Your task to perform on an android device: Play the last video I watched on Youtube Image 0: 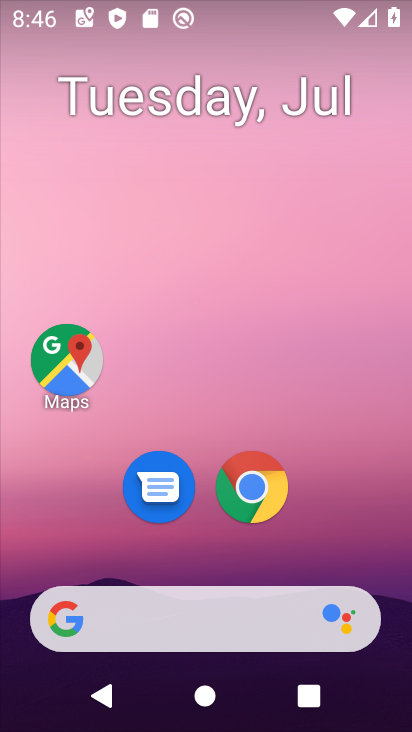
Step 0: drag from (163, 508) to (270, 0)
Your task to perform on an android device: Play the last video I watched on Youtube Image 1: 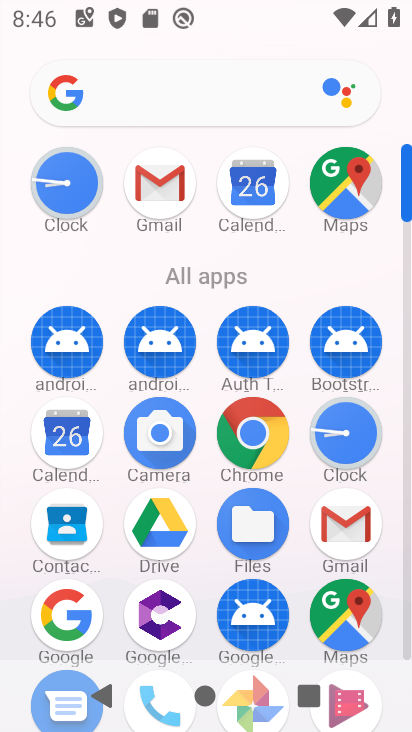
Step 1: drag from (192, 613) to (268, 23)
Your task to perform on an android device: Play the last video I watched on Youtube Image 2: 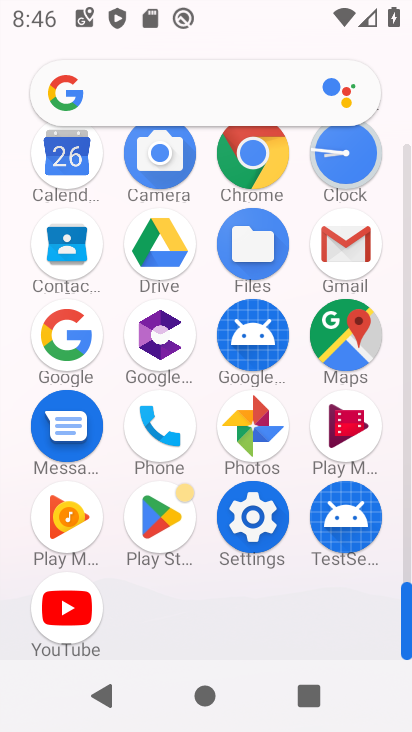
Step 2: click (77, 626)
Your task to perform on an android device: Play the last video I watched on Youtube Image 3: 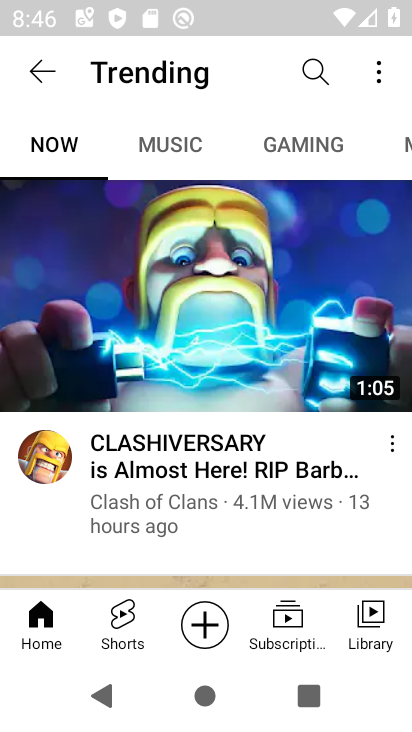
Step 3: click (362, 623)
Your task to perform on an android device: Play the last video I watched on Youtube Image 4: 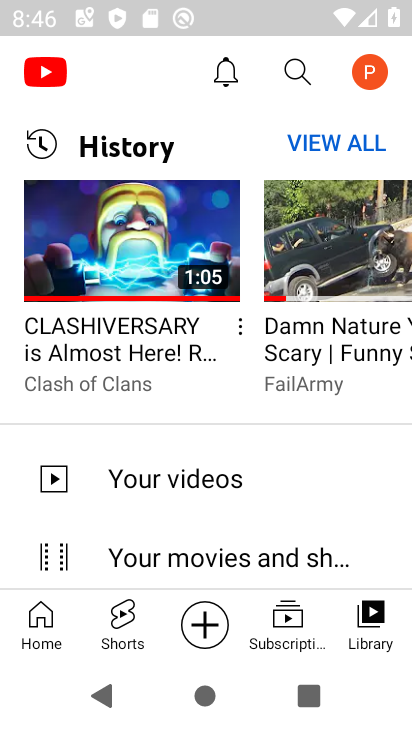
Step 4: click (130, 248)
Your task to perform on an android device: Play the last video I watched on Youtube Image 5: 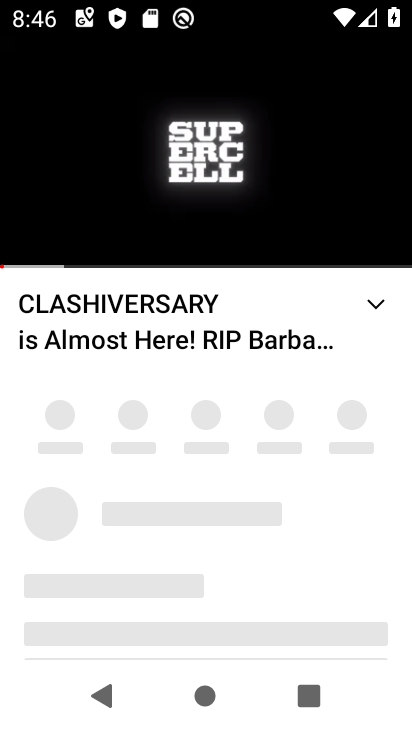
Step 5: click (200, 144)
Your task to perform on an android device: Play the last video I watched on Youtube Image 6: 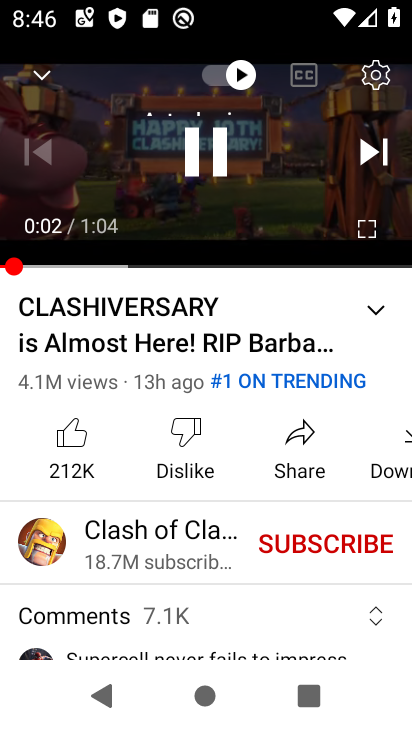
Step 6: click (200, 144)
Your task to perform on an android device: Play the last video I watched on Youtube Image 7: 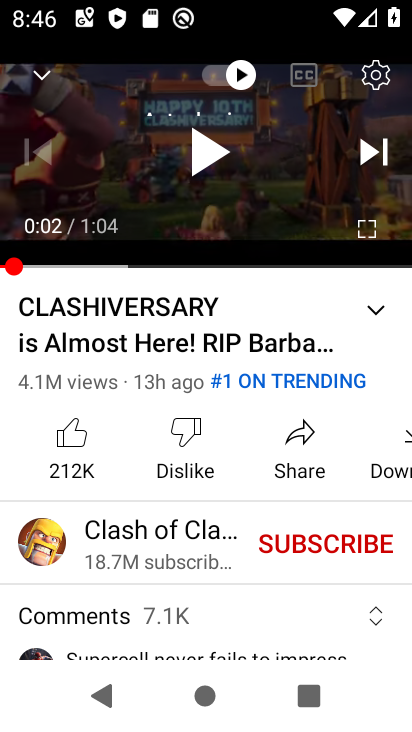
Step 7: task complete